Your task to perform on an android device: Clear all items from cart on bestbuy.com. Search for "razer thresher" on bestbuy.com, select the first entry, add it to the cart, then select checkout. Image 0: 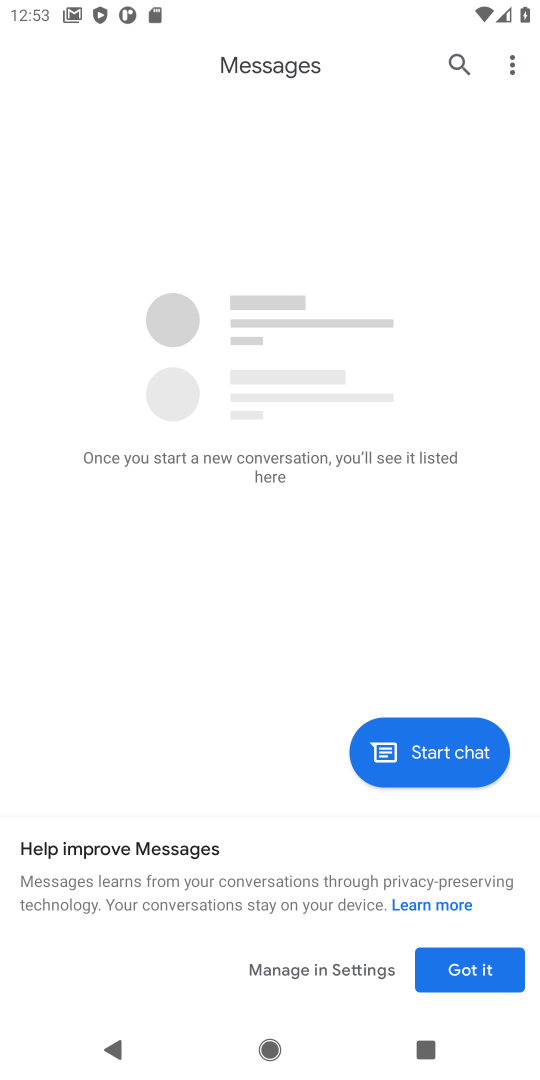
Step 0: press home button
Your task to perform on an android device: Clear all items from cart on bestbuy.com. Search for "razer thresher" on bestbuy.com, select the first entry, add it to the cart, then select checkout. Image 1: 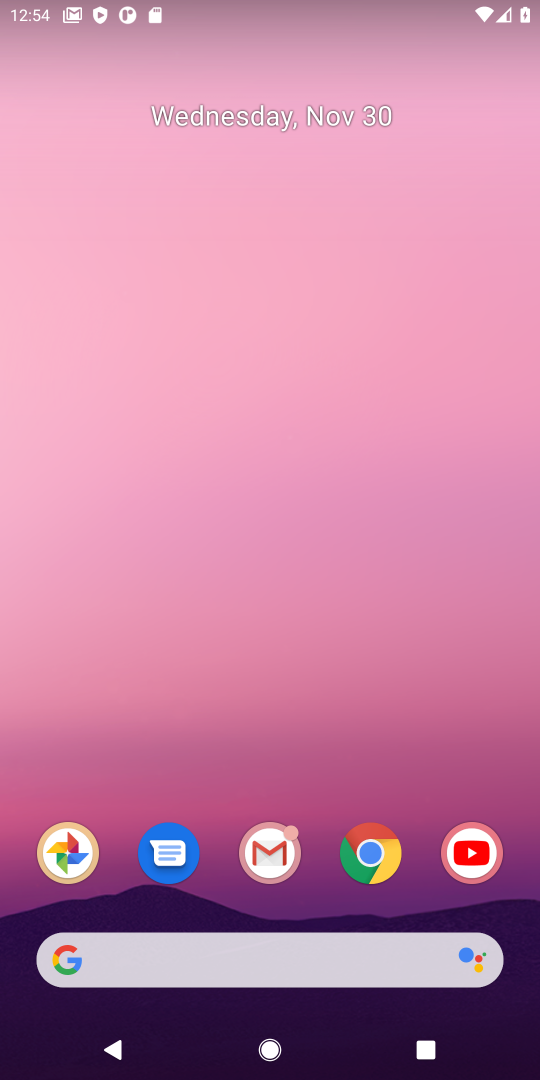
Step 1: click (363, 850)
Your task to perform on an android device: Clear all items from cart on bestbuy.com. Search for "razer thresher" on bestbuy.com, select the first entry, add it to the cart, then select checkout. Image 2: 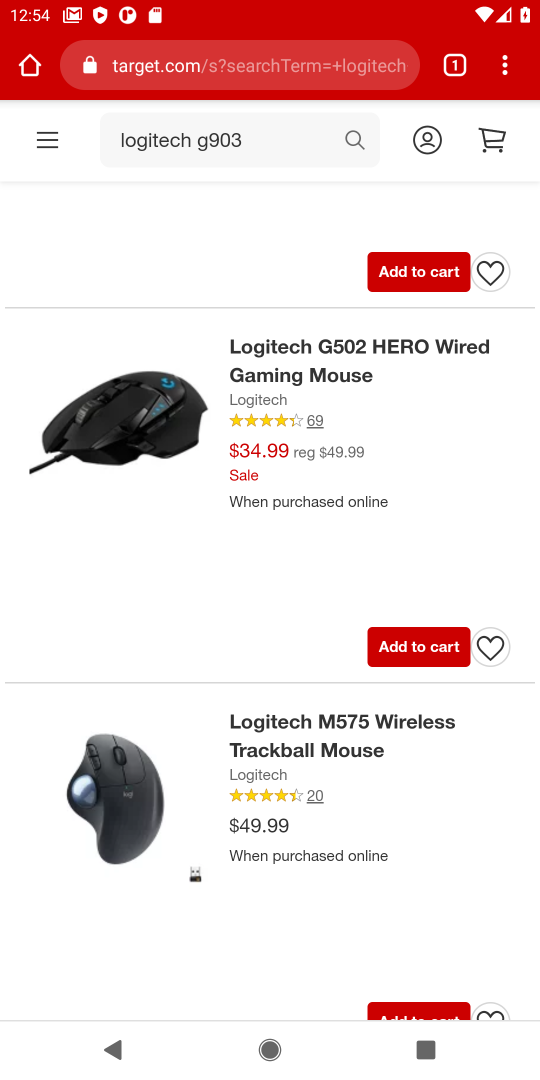
Step 2: click (221, 77)
Your task to perform on an android device: Clear all items from cart on bestbuy.com. Search for "razer thresher" on bestbuy.com, select the first entry, add it to the cart, then select checkout. Image 3: 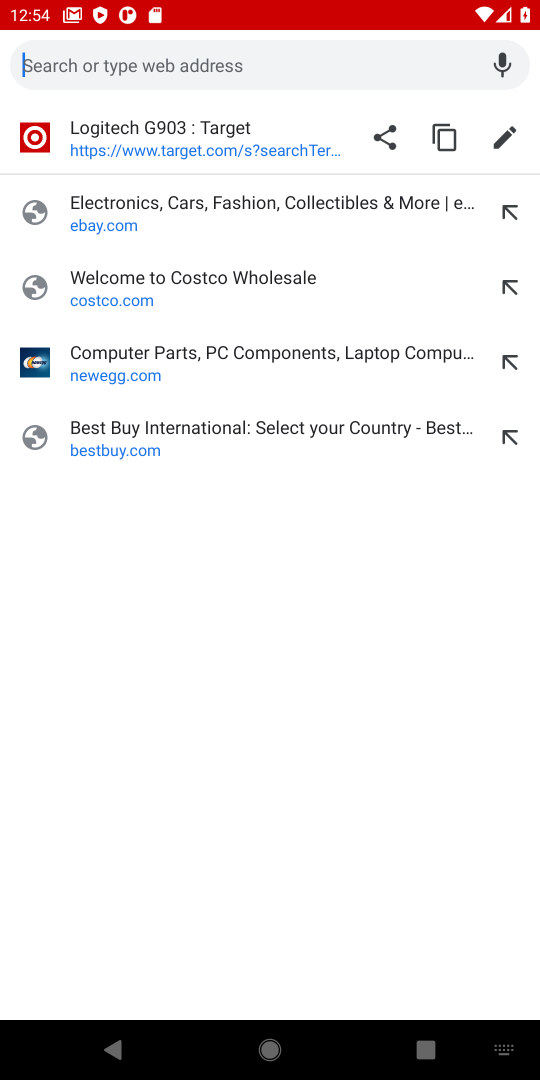
Step 3: click (109, 440)
Your task to perform on an android device: Clear all items from cart on bestbuy.com. Search for "razer thresher" on bestbuy.com, select the first entry, add it to the cart, then select checkout. Image 4: 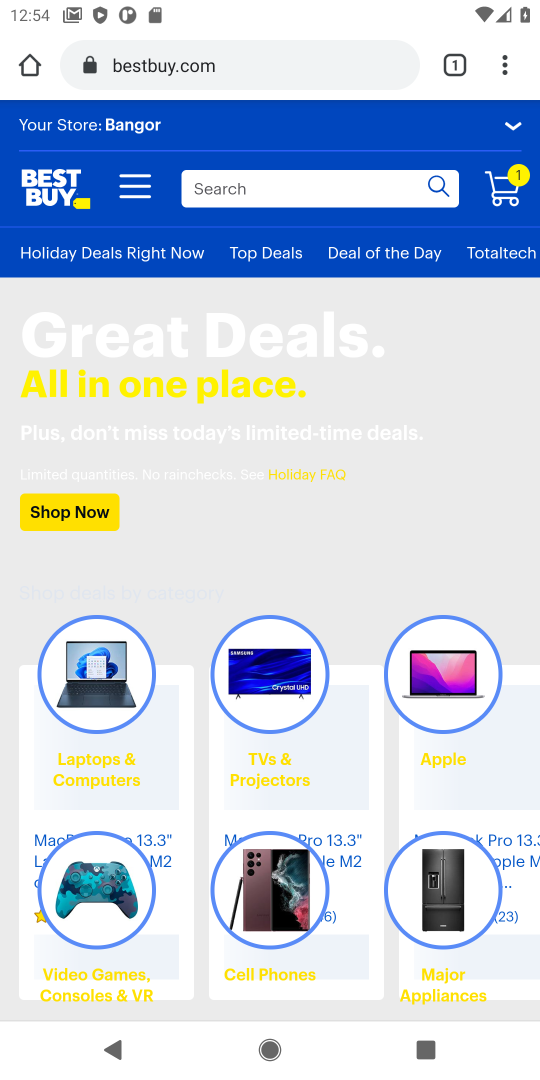
Step 4: click (505, 191)
Your task to perform on an android device: Clear all items from cart on bestbuy.com. Search for "razer thresher" on bestbuy.com, select the first entry, add it to the cart, then select checkout. Image 5: 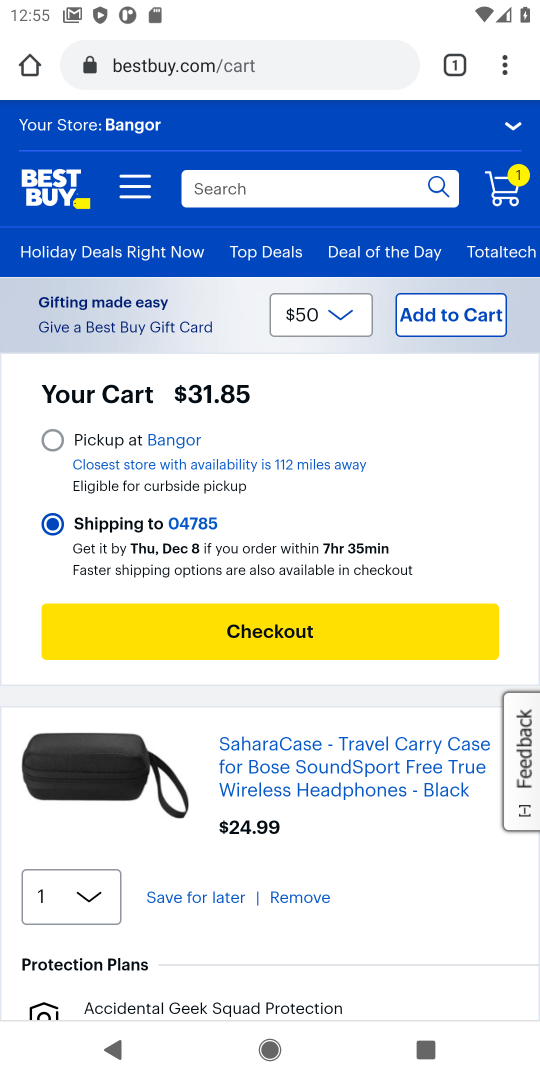
Step 5: drag from (359, 716) to (352, 393)
Your task to perform on an android device: Clear all items from cart on bestbuy.com. Search for "razer thresher" on bestbuy.com, select the first entry, add it to the cart, then select checkout. Image 6: 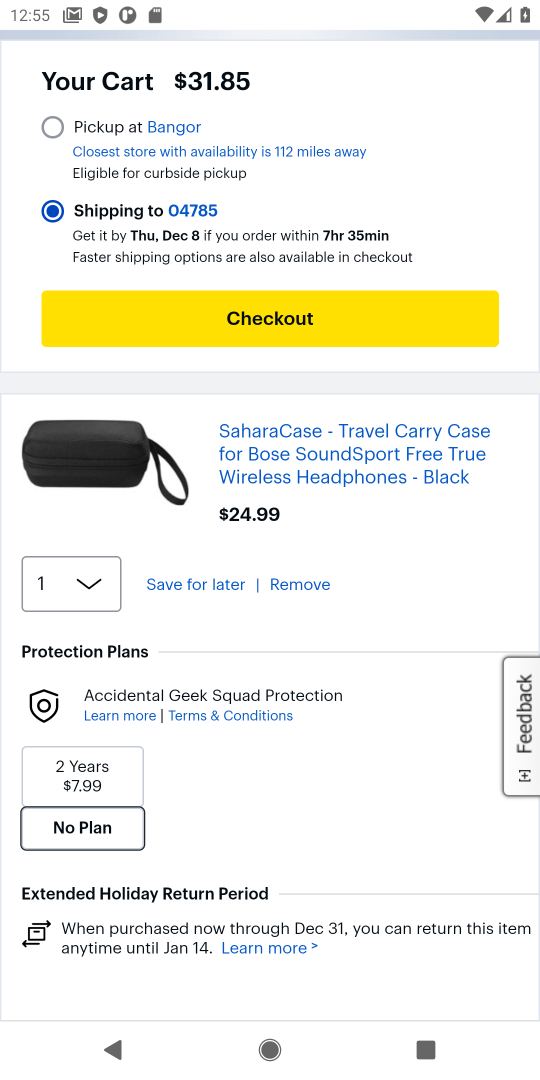
Step 6: click (294, 572)
Your task to perform on an android device: Clear all items from cart on bestbuy.com. Search for "razer thresher" on bestbuy.com, select the first entry, add it to the cart, then select checkout. Image 7: 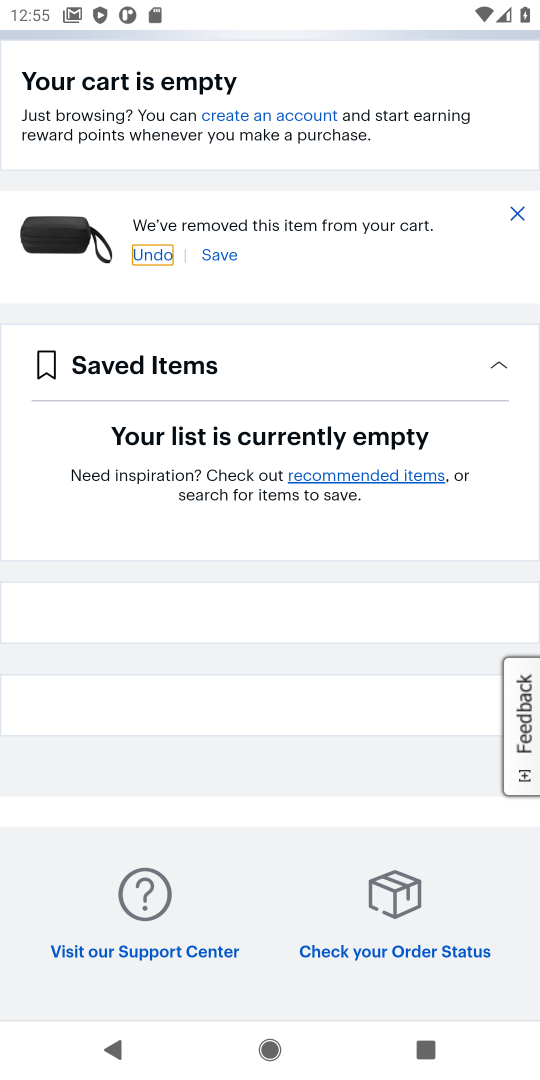
Step 7: drag from (301, 269) to (301, 636)
Your task to perform on an android device: Clear all items from cart on bestbuy.com. Search for "razer thresher" on bestbuy.com, select the first entry, add it to the cart, then select checkout. Image 8: 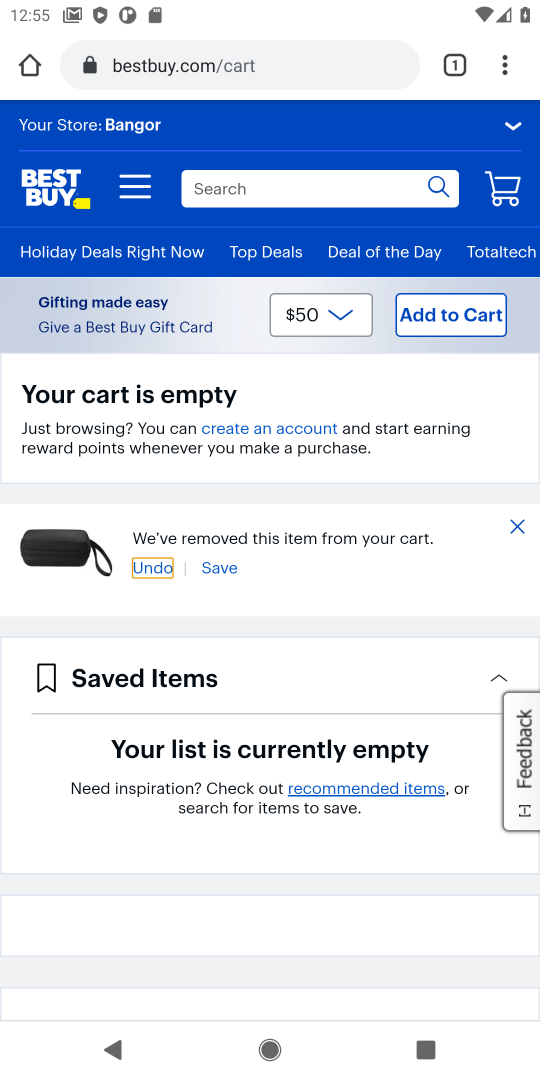
Step 8: click (195, 186)
Your task to perform on an android device: Clear all items from cart on bestbuy.com. Search for "razer thresher" on bestbuy.com, select the first entry, add it to the cart, then select checkout. Image 9: 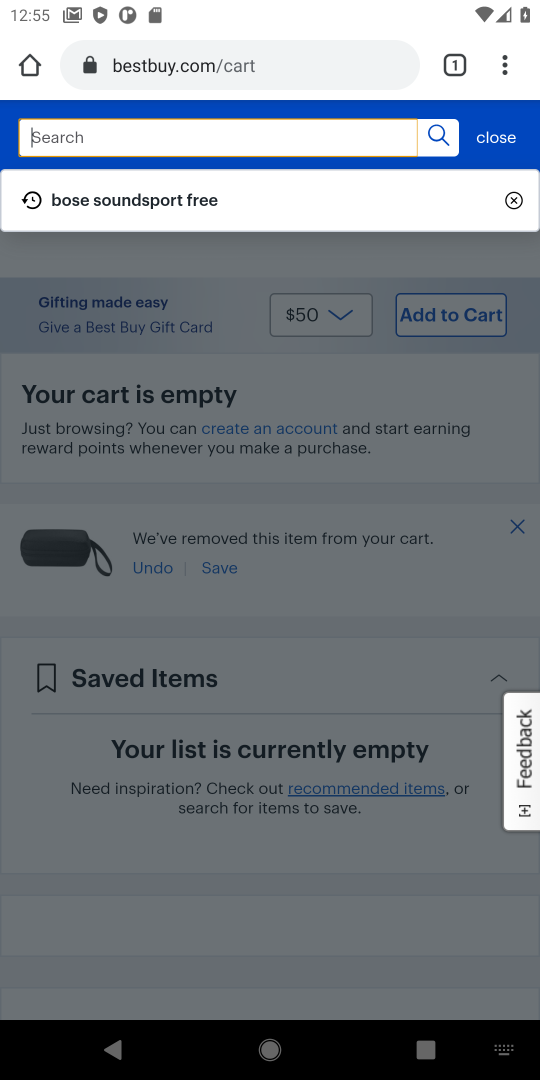
Step 9: type "razer thresher"
Your task to perform on an android device: Clear all items from cart on bestbuy.com. Search for "razer thresher" on bestbuy.com, select the first entry, add it to the cart, then select checkout. Image 10: 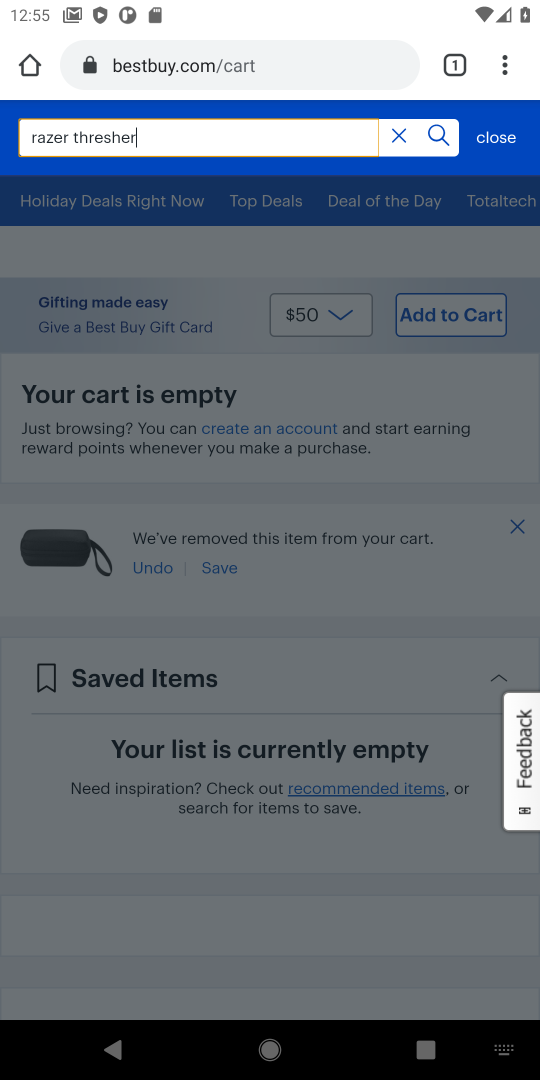
Step 10: click (437, 129)
Your task to perform on an android device: Clear all items from cart on bestbuy.com. Search for "razer thresher" on bestbuy.com, select the first entry, add it to the cart, then select checkout. Image 11: 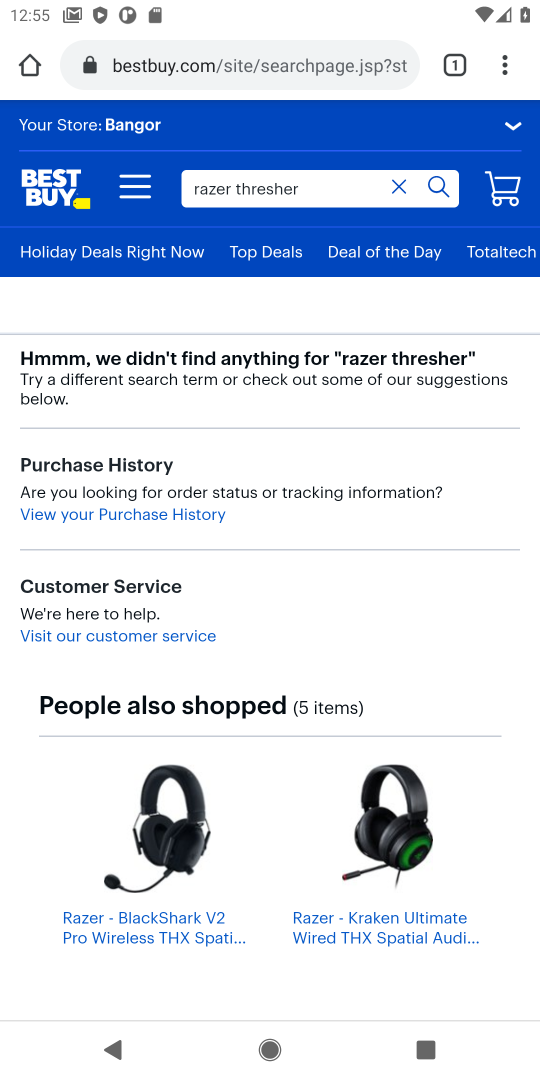
Step 11: task complete